Your task to perform on an android device: change timer sound Image 0: 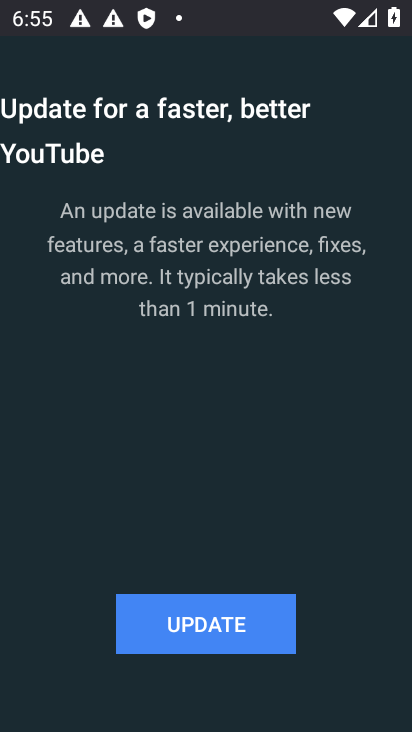
Step 0: press home button
Your task to perform on an android device: change timer sound Image 1: 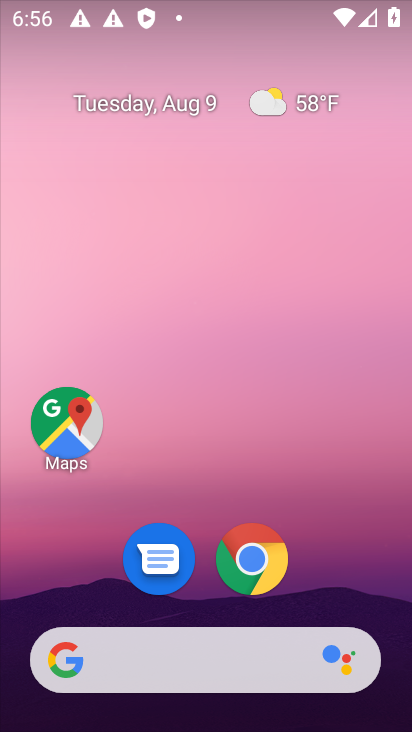
Step 1: drag from (198, 510) to (197, 51)
Your task to perform on an android device: change timer sound Image 2: 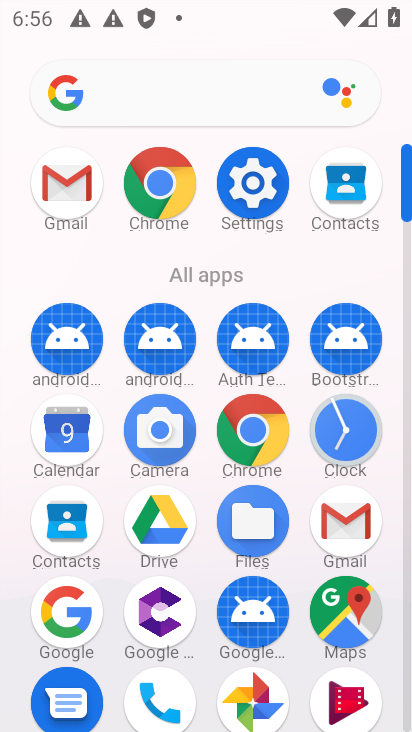
Step 2: click (352, 442)
Your task to perform on an android device: change timer sound Image 3: 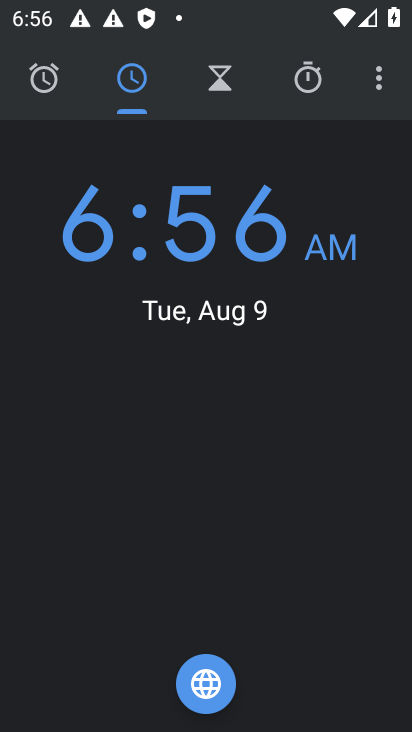
Step 3: click (383, 87)
Your task to perform on an android device: change timer sound Image 4: 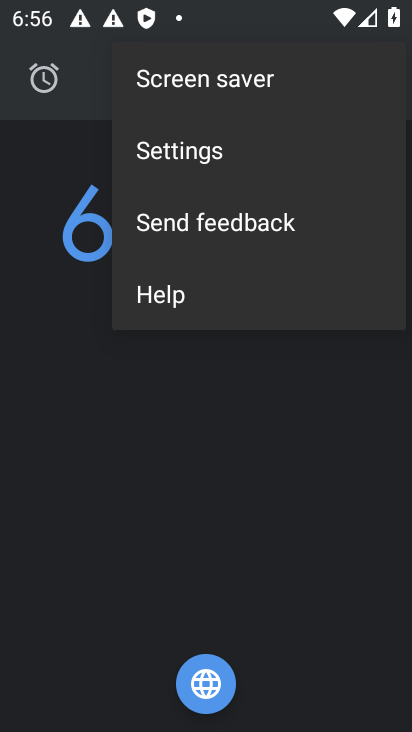
Step 4: click (216, 149)
Your task to perform on an android device: change timer sound Image 5: 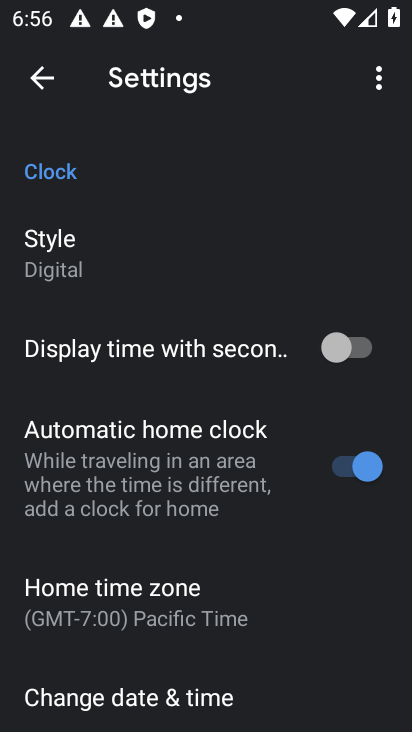
Step 5: drag from (279, 602) to (239, 340)
Your task to perform on an android device: change timer sound Image 6: 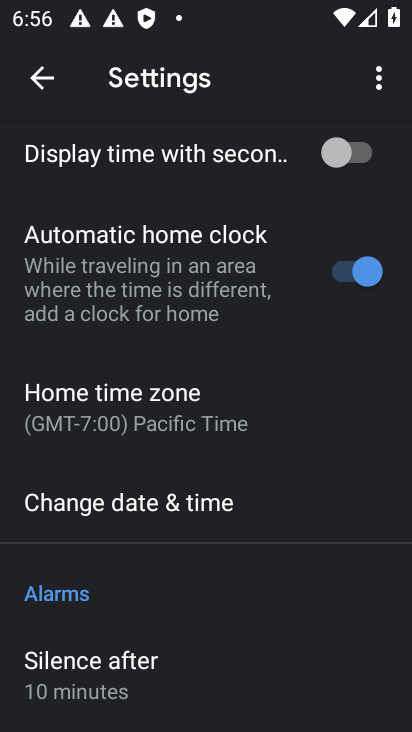
Step 6: drag from (194, 580) to (148, 121)
Your task to perform on an android device: change timer sound Image 7: 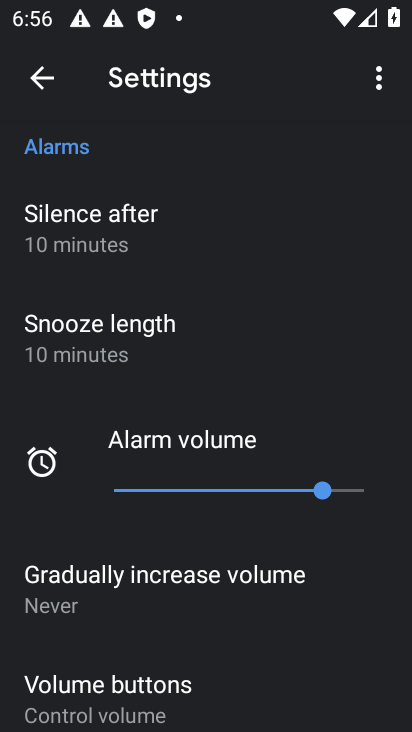
Step 7: drag from (196, 600) to (153, 309)
Your task to perform on an android device: change timer sound Image 8: 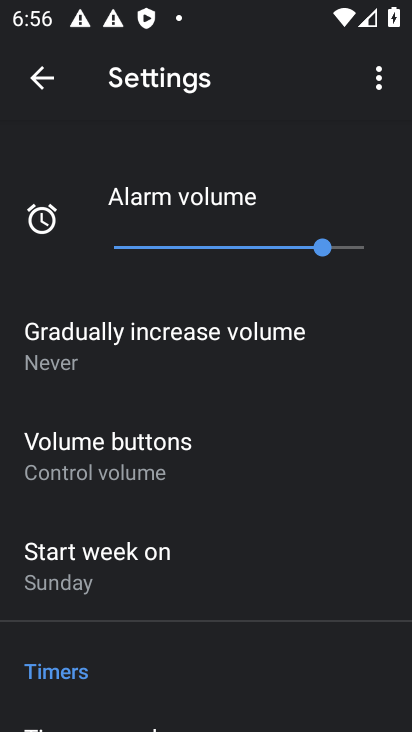
Step 8: drag from (212, 598) to (170, 171)
Your task to perform on an android device: change timer sound Image 9: 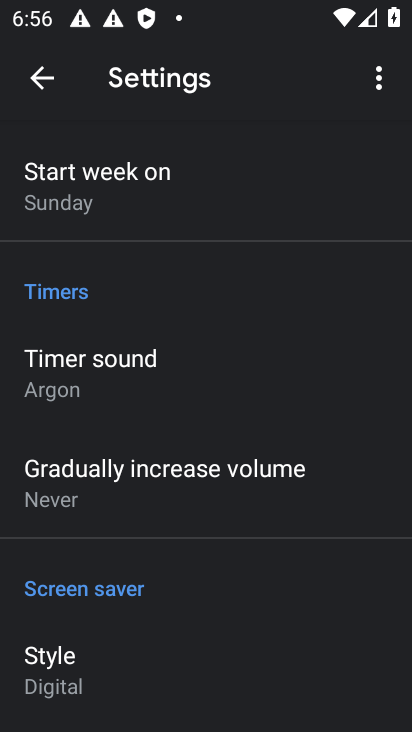
Step 9: drag from (205, 597) to (205, 362)
Your task to perform on an android device: change timer sound Image 10: 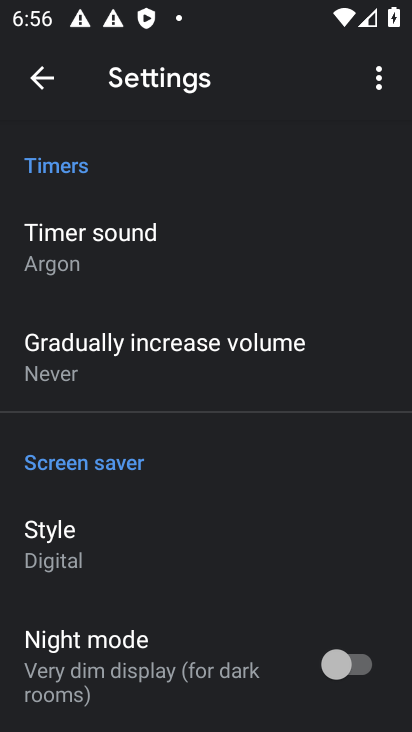
Step 10: click (88, 269)
Your task to perform on an android device: change timer sound Image 11: 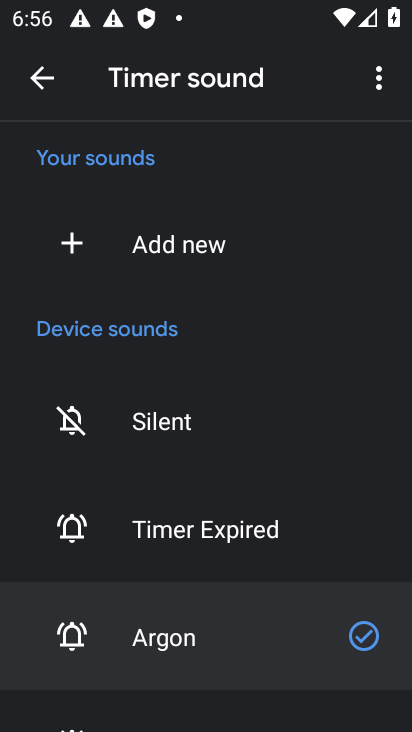
Step 11: drag from (174, 524) to (190, 75)
Your task to perform on an android device: change timer sound Image 12: 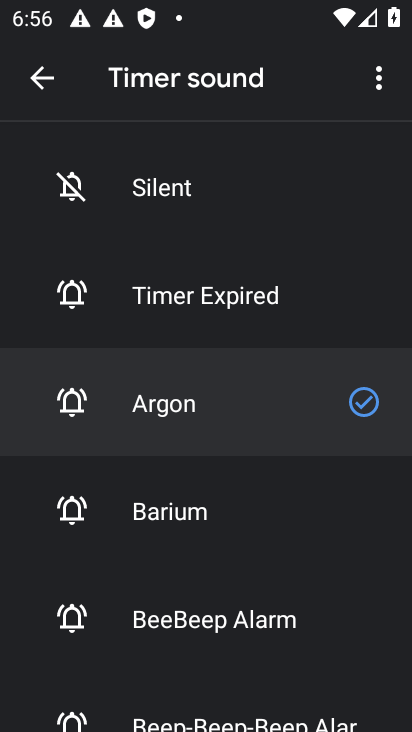
Step 12: click (156, 514)
Your task to perform on an android device: change timer sound Image 13: 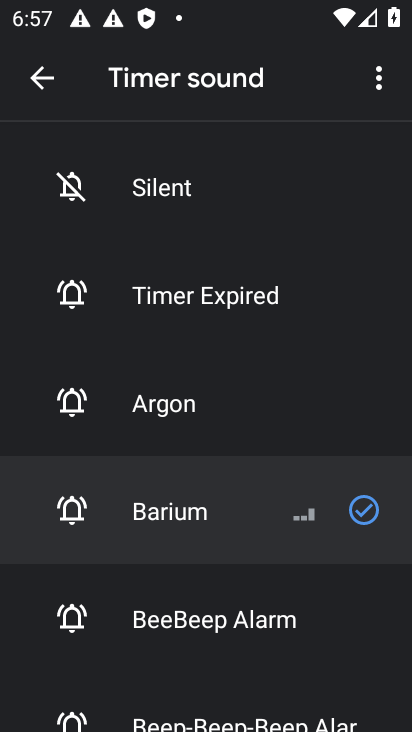
Step 13: task complete